Your task to perform on an android device: Search for pizza restaurants on Maps Image 0: 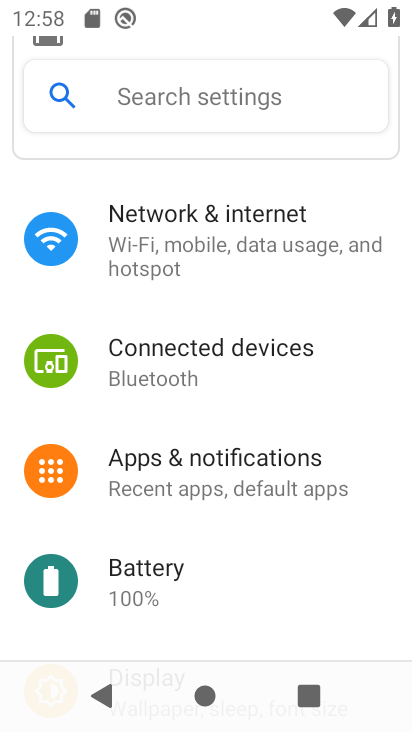
Step 0: press home button
Your task to perform on an android device: Search for pizza restaurants on Maps Image 1: 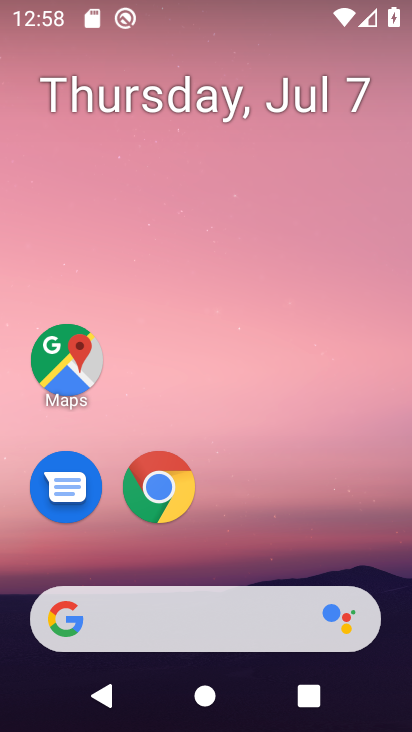
Step 1: drag from (344, 469) to (348, 68)
Your task to perform on an android device: Search for pizza restaurants on Maps Image 2: 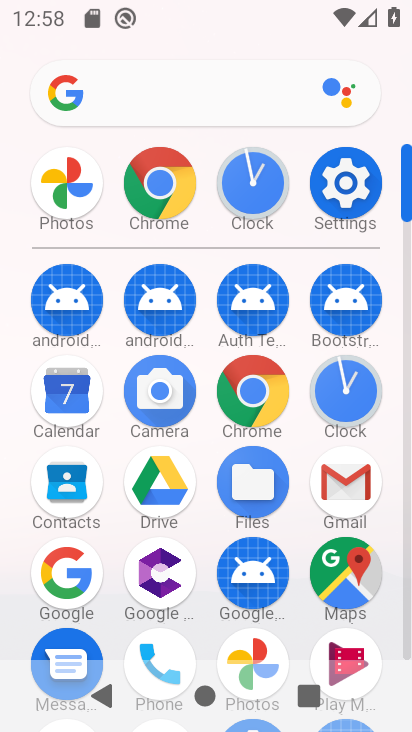
Step 2: click (348, 574)
Your task to perform on an android device: Search for pizza restaurants on Maps Image 3: 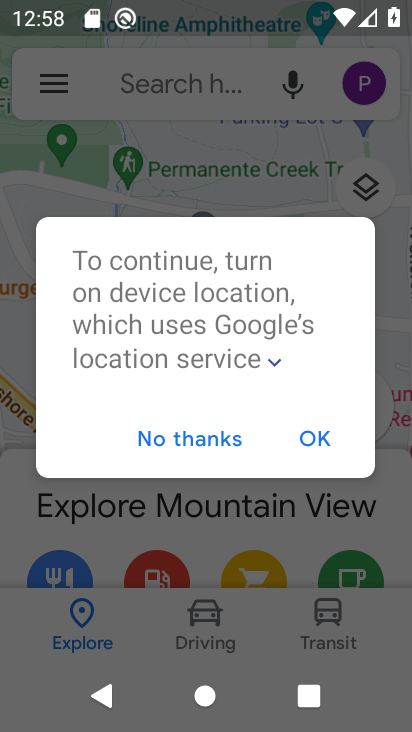
Step 3: click (227, 447)
Your task to perform on an android device: Search for pizza restaurants on Maps Image 4: 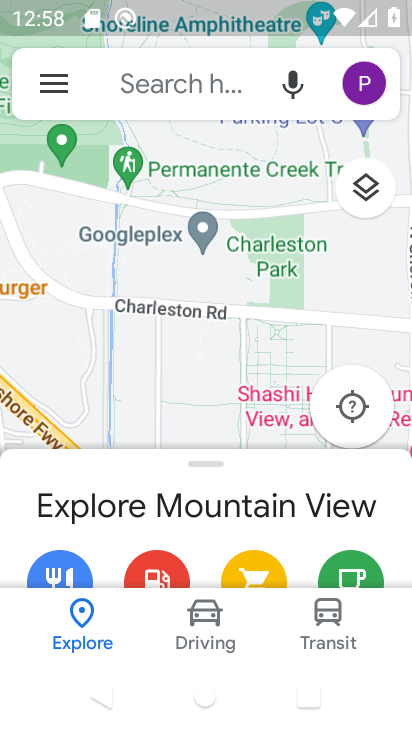
Step 4: click (205, 92)
Your task to perform on an android device: Search for pizza restaurants on Maps Image 5: 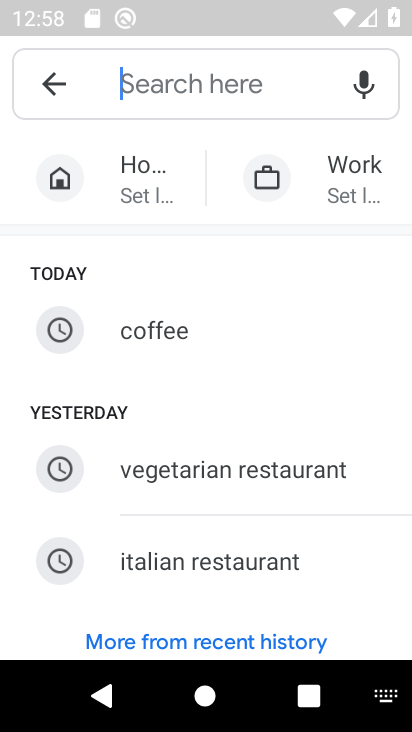
Step 5: type "oizza restaurants"
Your task to perform on an android device: Search for pizza restaurants on Maps Image 6: 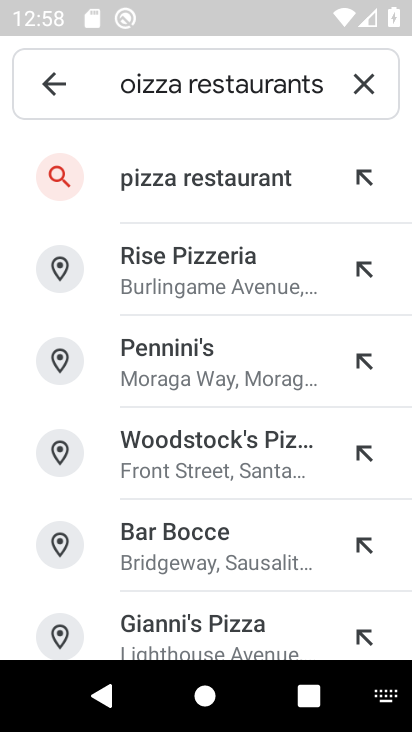
Step 6: click (292, 193)
Your task to perform on an android device: Search for pizza restaurants on Maps Image 7: 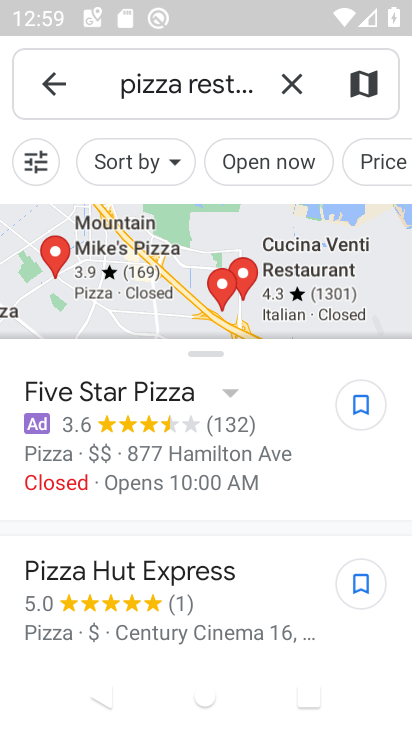
Step 7: task complete